Your task to perform on an android device: turn notification dots on Image 0: 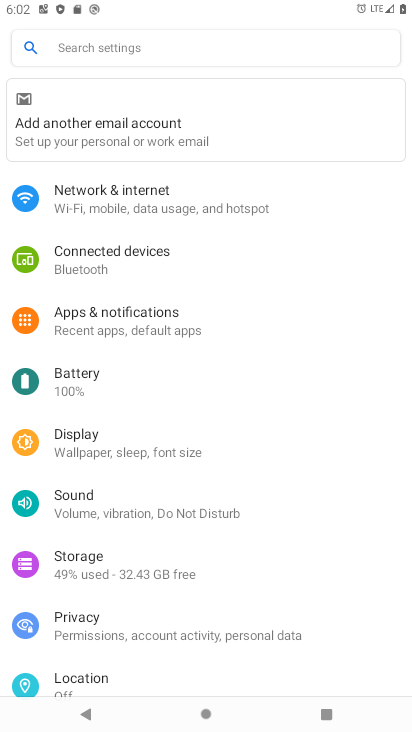
Step 0: click (173, 306)
Your task to perform on an android device: turn notification dots on Image 1: 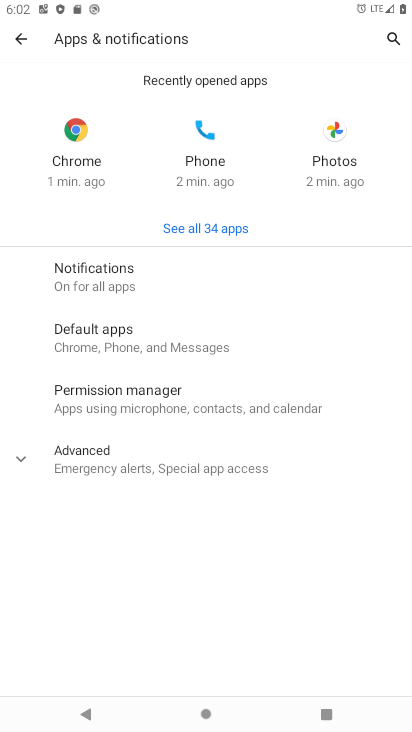
Step 1: click (170, 268)
Your task to perform on an android device: turn notification dots on Image 2: 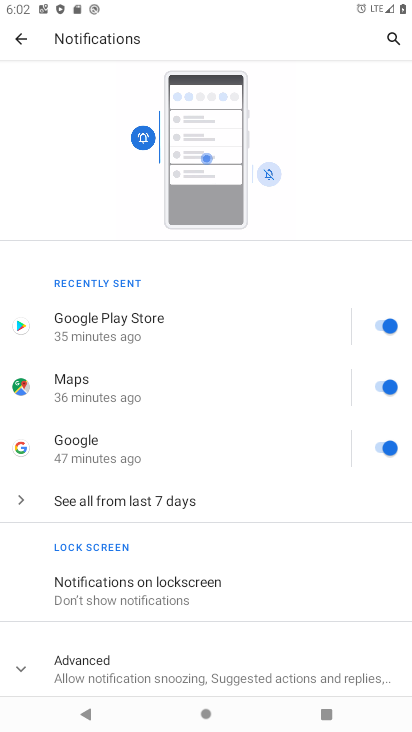
Step 2: click (97, 659)
Your task to perform on an android device: turn notification dots on Image 3: 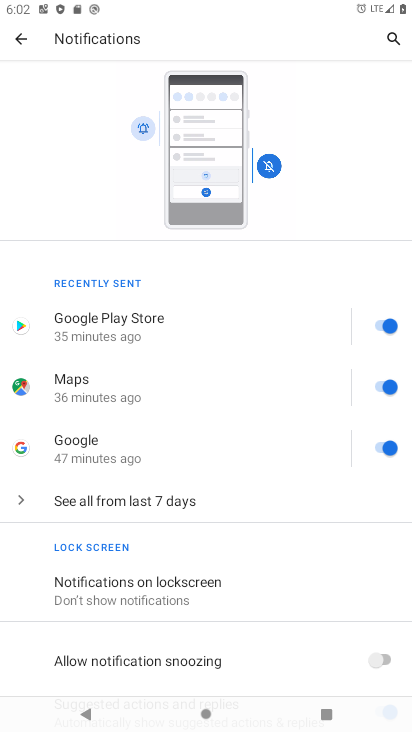
Step 3: task complete